Your task to perform on an android device: toggle improve location accuracy Image 0: 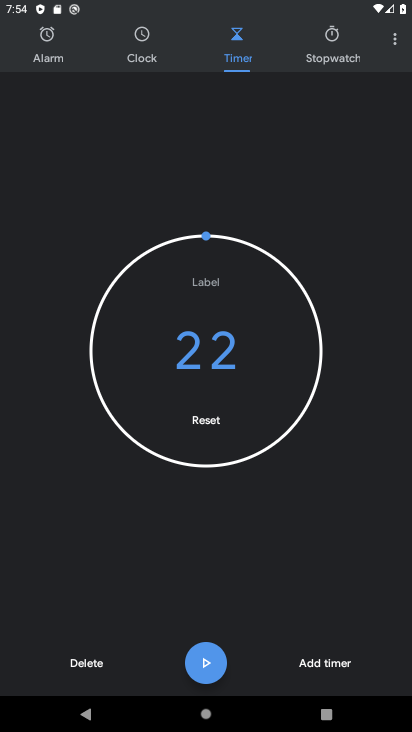
Step 0: press home button
Your task to perform on an android device: toggle improve location accuracy Image 1: 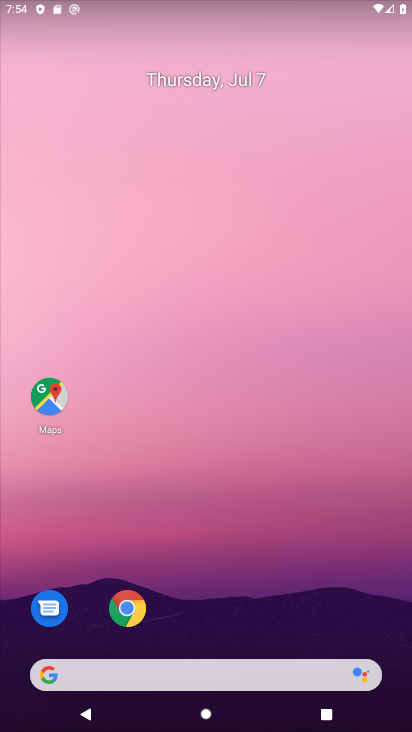
Step 1: drag from (206, 580) to (201, 266)
Your task to perform on an android device: toggle improve location accuracy Image 2: 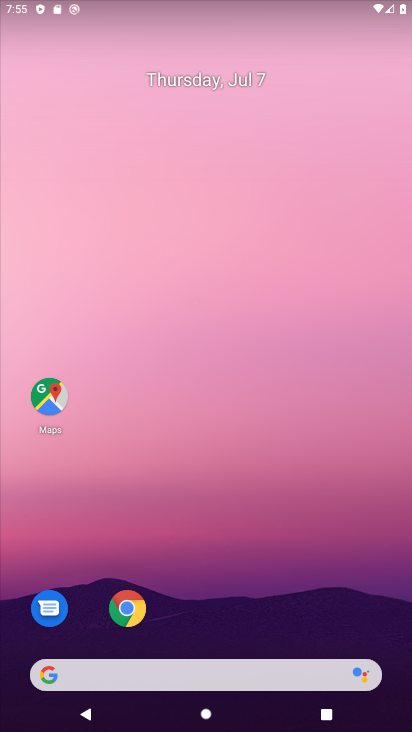
Step 2: drag from (198, 625) to (199, 60)
Your task to perform on an android device: toggle improve location accuracy Image 3: 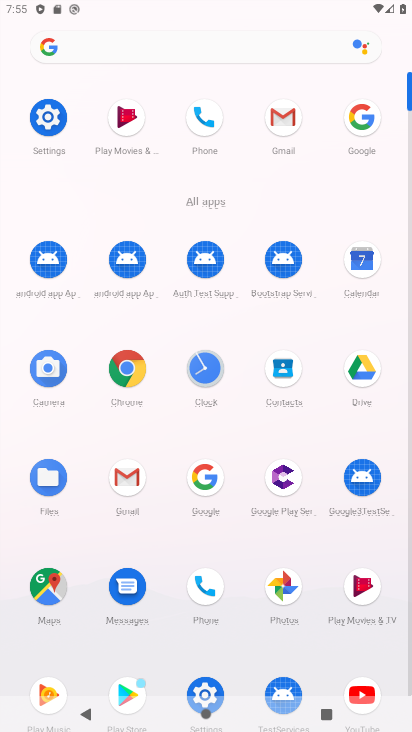
Step 3: click (49, 116)
Your task to perform on an android device: toggle improve location accuracy Image 4: 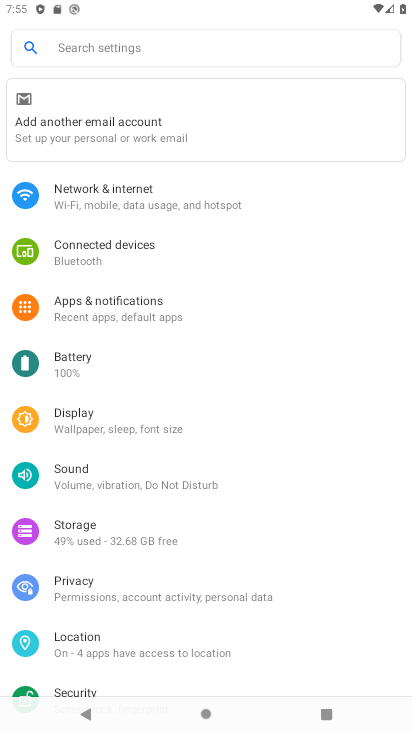
Step 4: click (113, 640)
Your task to perform on an android device: toggle improve location accuracy Image 5: 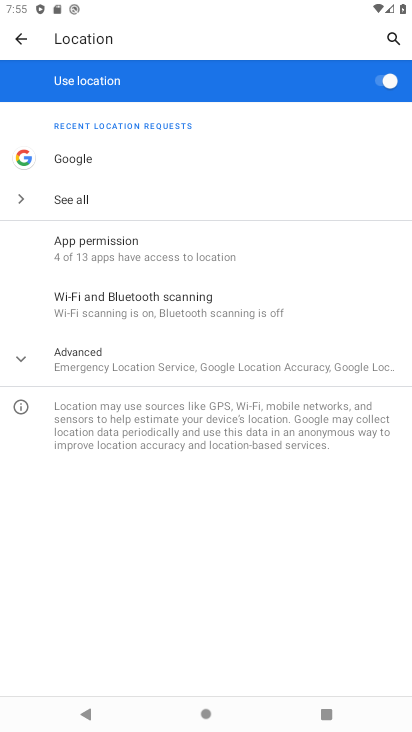
Step 5: click (166, 363)
Your task to perform on an android device: toggle improve location accuracy Image 6: 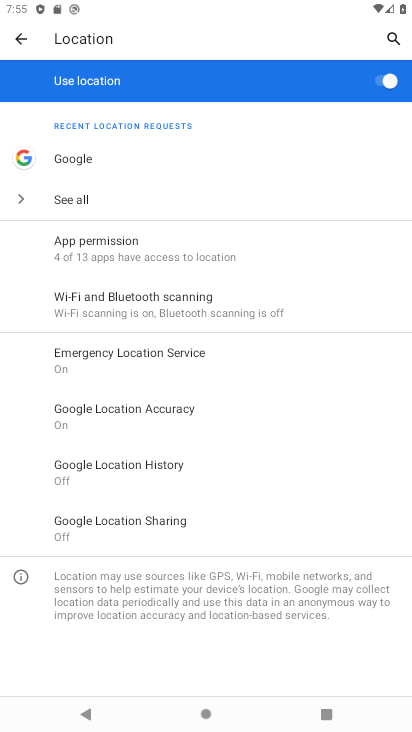
Step 6: click (157, 412)
Your task to perform on an android device: toggle improve location accuracy Image 7: 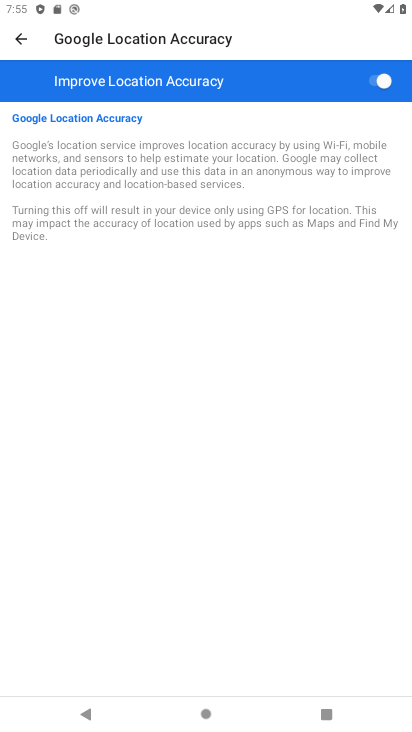
Step 7: click (369, 81)
Your task to perform on an android device: toggle improve location accuracy Image 8: 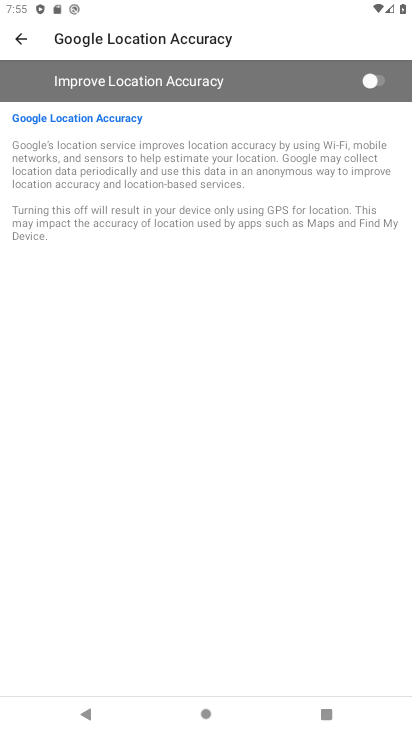
Step 8: task complete